Your task to perform on an android device: delete browsing data in the chrome app Image 0: 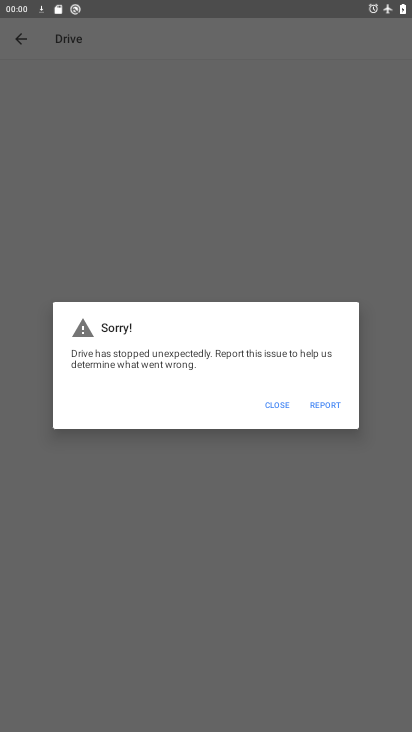
Step 0: press home button
Your task to perform on an android device: delete browsing data in the chrome app Image 1: 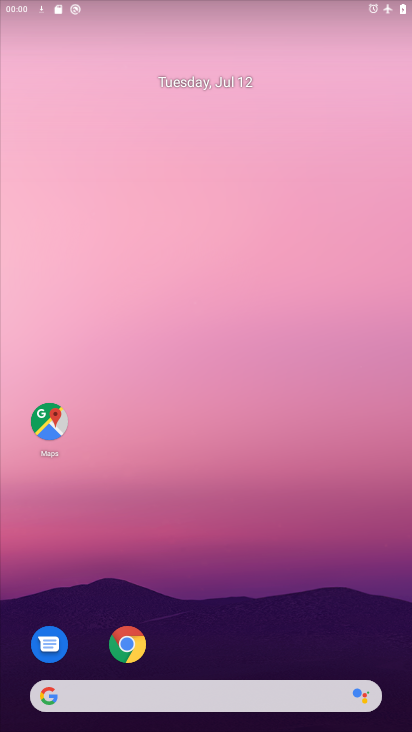
Step 1: drag from (202, 635) to (192, 274)
Your task to perform on an android device: delete browsing data in the chrome app Image 2: 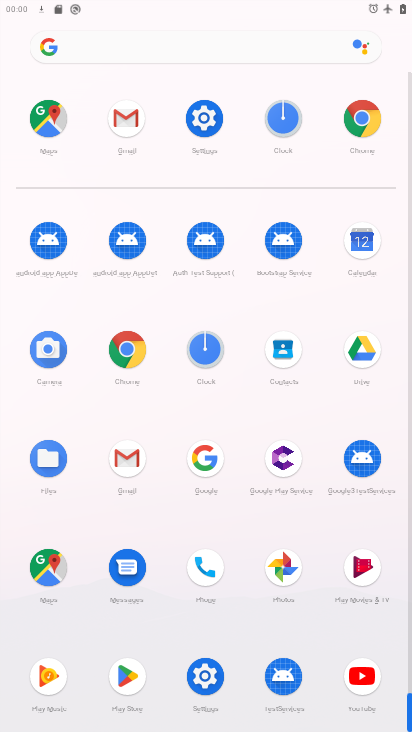
Step 2: click (184, 223)
Your task to perform on an android device: delete browsing data in the chrome app Image 3: 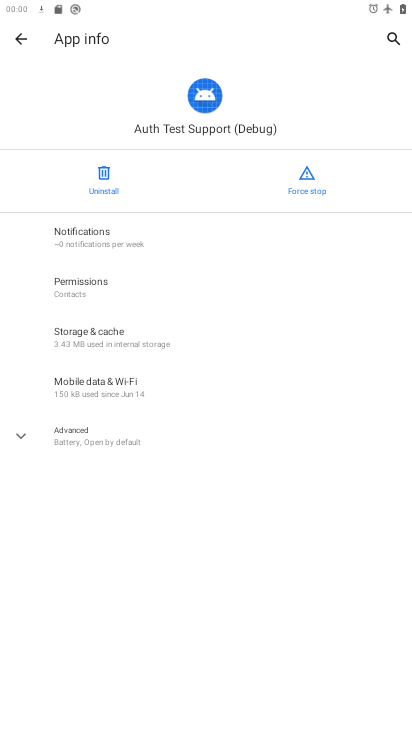
Step 3: press home button
Your task to perform on an android device: delete browsing data in the chrome app Image 4: 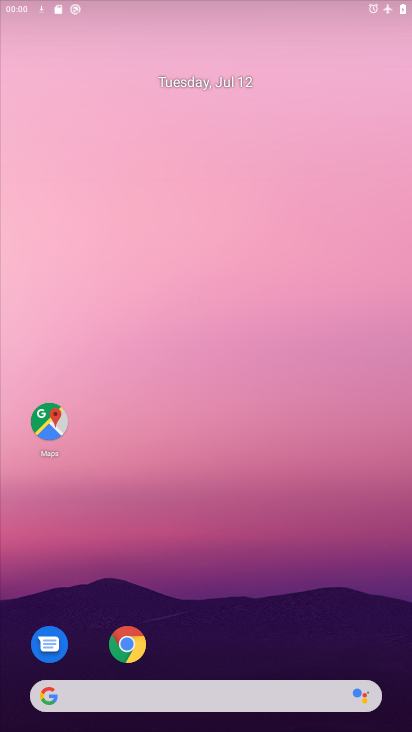
Step 4: drag from (178, 581) to (177, 360)
Your task to perform on an android device: delete browsing data in the chrome app Image 5: 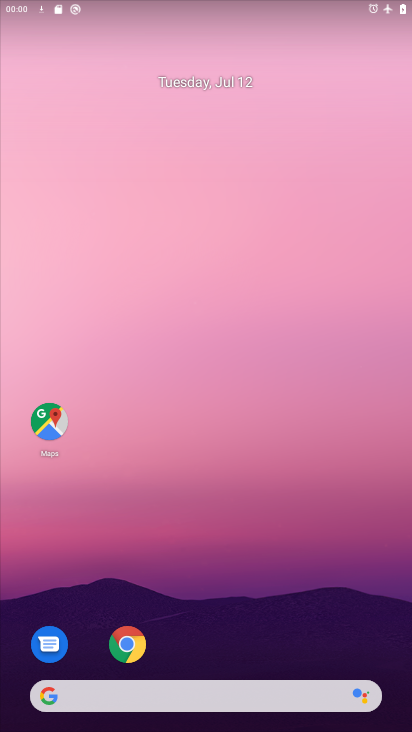
Step 5: click (111, 632)
Your task to perform on an android device: delete browsing data in the chrome app Image 6: 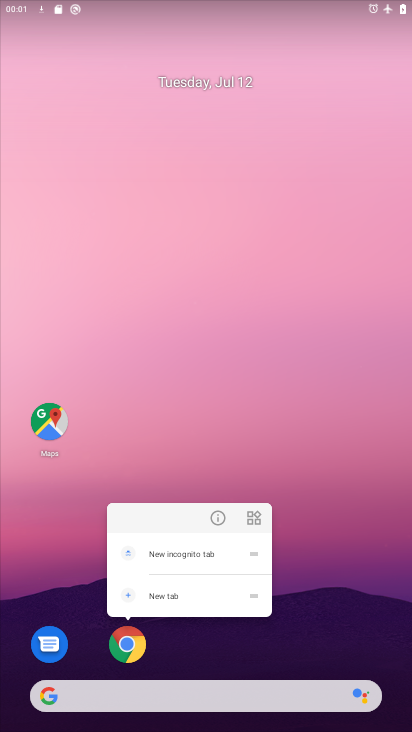
Step 6: click (129, 638)
Your task to perform on an android device: delete browsing data in the chrome app Image 7: 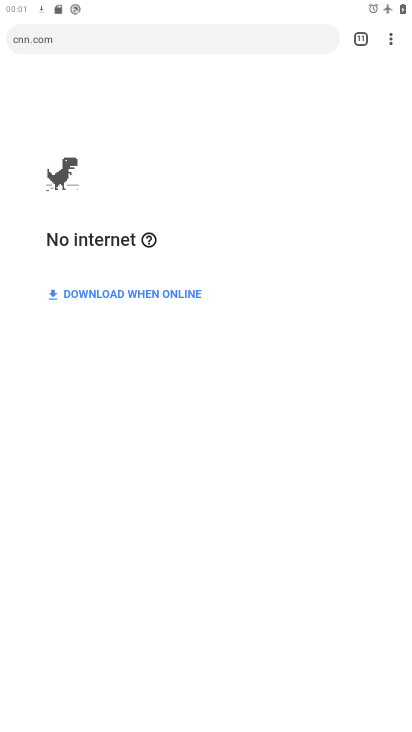
Step 7: click (400, 30)
Your task to perform on an android device: delete browsing data in the chrome app Image 8: 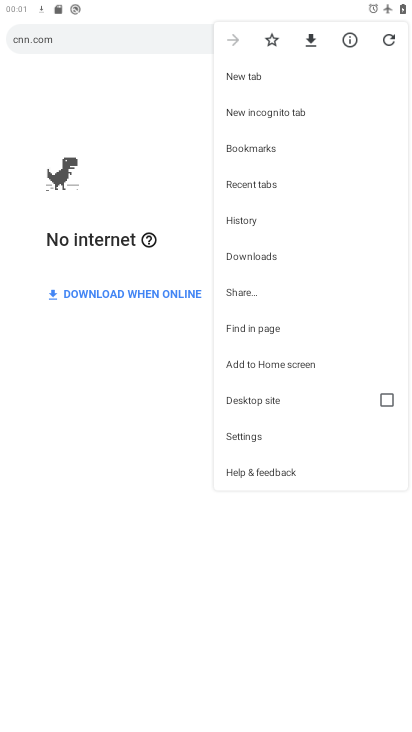
Step 8: click (232, 421)
Your task to perform on an android device: delete browsing data in the chrome app Image 9: 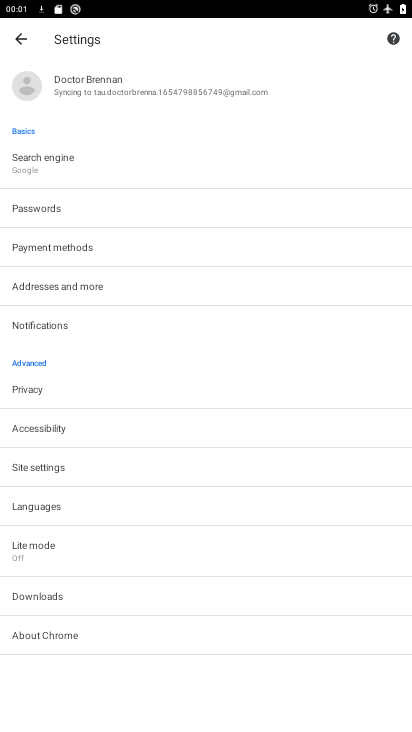
Step 9: click (73, 377)
Your task to perform on an android device: delete browsing data in the chrome app Image 10: 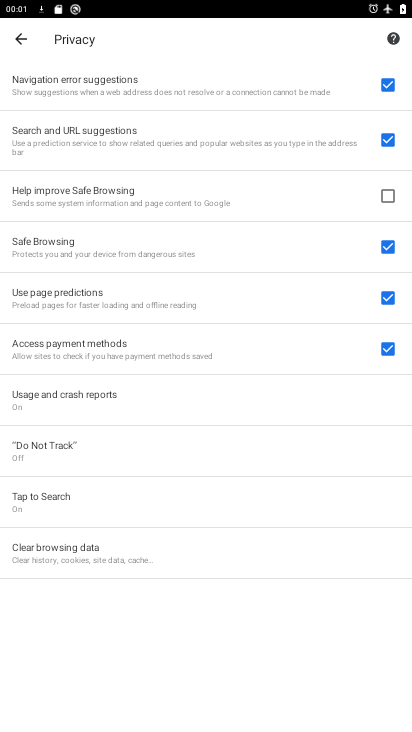
Step 10: click (86, 552)
Your task to perform on an android device: delete browsing data in the chrome app Image 11: 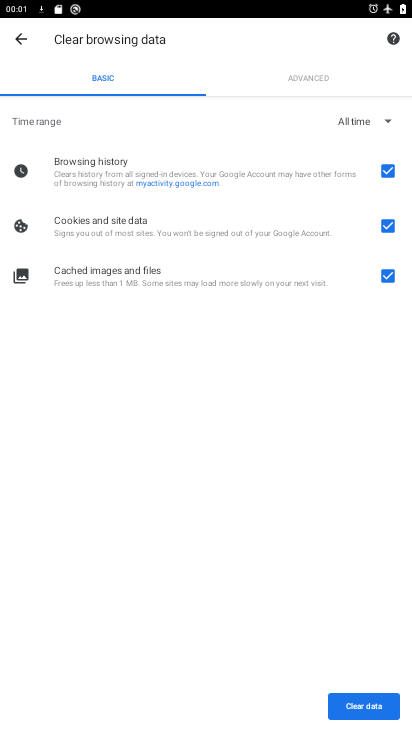
Step 11: click (357, 707)
Your task to perform on an android device: delete browsing data in the chrome app Image 12: 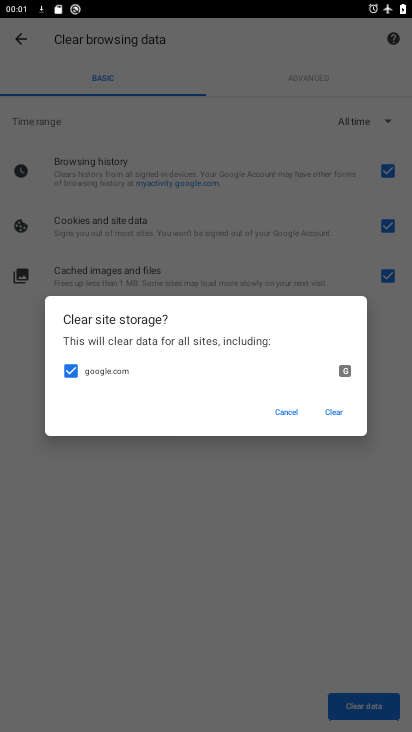
Step 12: click (327, 420)
Your task to perform on an android device: delete browsing data in the chrome app Image 13: 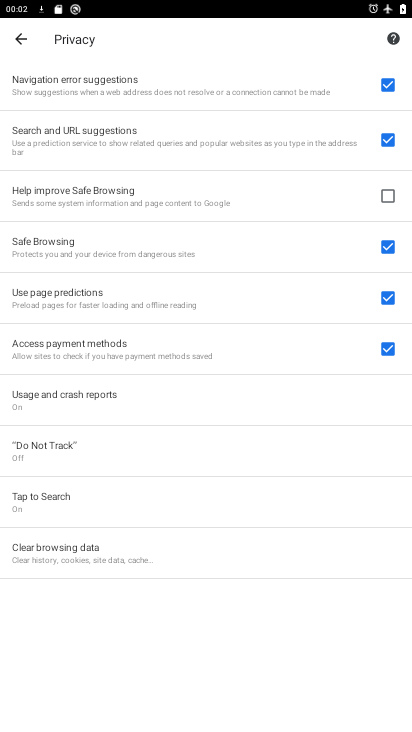
Step 13: task complete